Your task to perform on an android device: Turn off the flashlight Image 0: 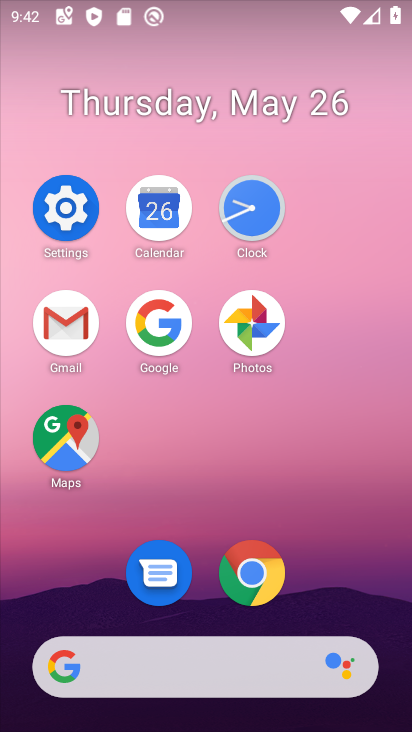
Step 0: drag from (260, 13) to (315, 489)
Your task to perform on an android device: Turn off the flashlight Image 1: 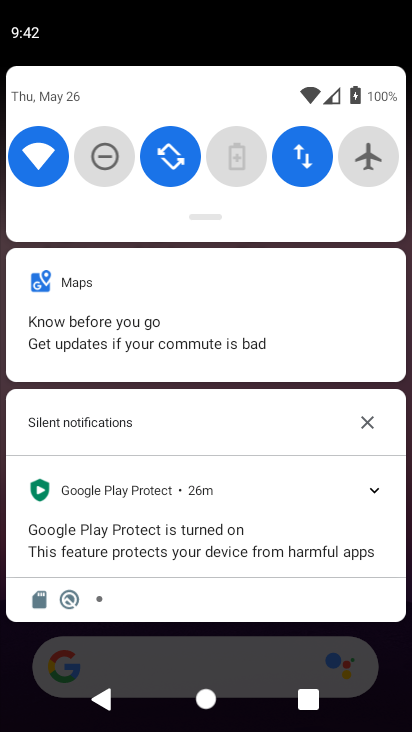
Step 1: task complete